Your task to perform on an android device: Open notification settings Image 0: 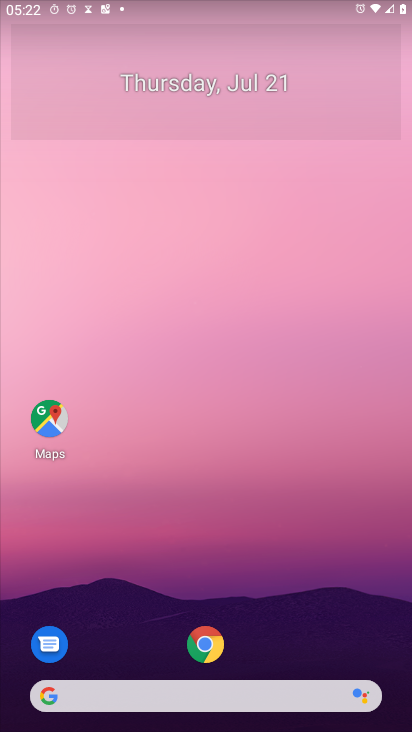
Step 0: press home button
Your task to perform on an android device: Open notification settings Image 1: 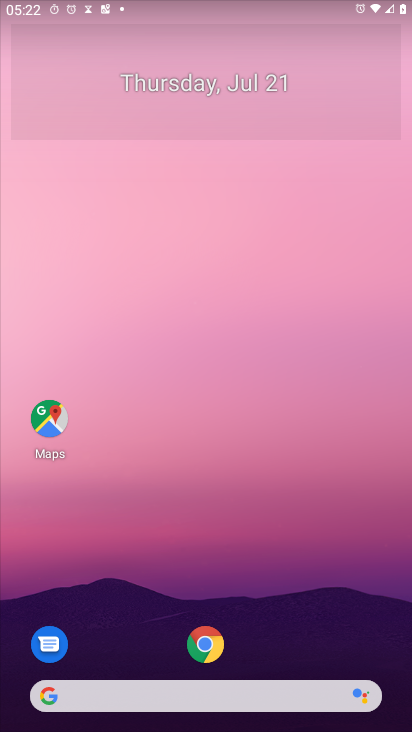
Step 1: drag from (338, 607) to (356, 153)
Your task to perform on an android device: Open notification settings Image 2: 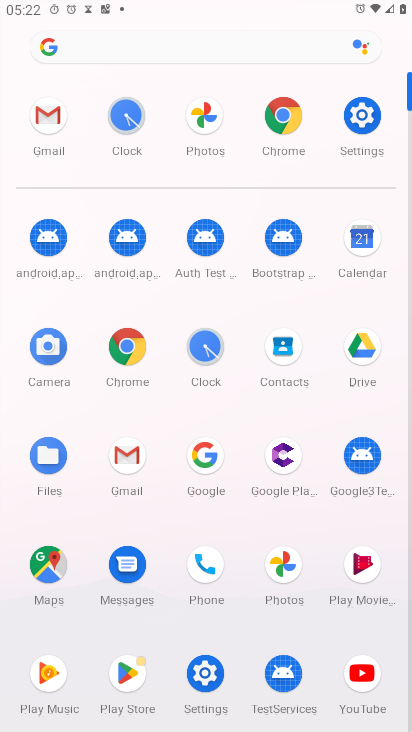
Step 2: click (359, 121)
Your task to perform on an android device: Open notification settings Image 3: 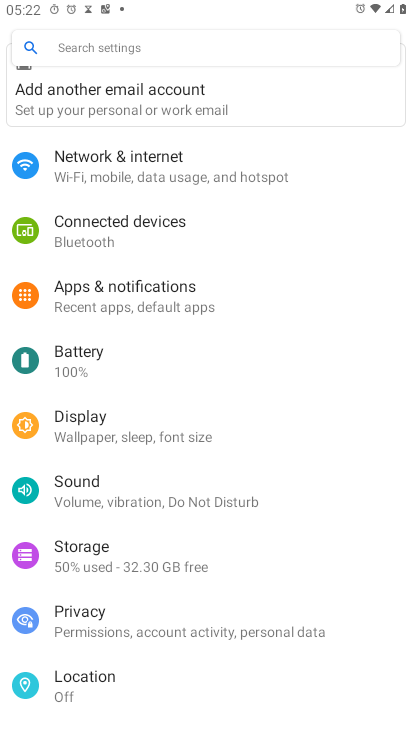
Step 3: click (86, 286)
Your task to perform on an android device: Open notification settings Image 4: 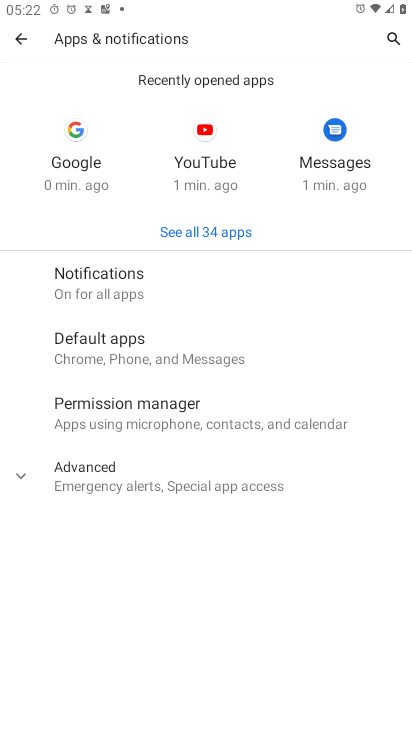
Step 4: click (117, 279)
Your task to perform on an android device: Open notification settings Image 5: 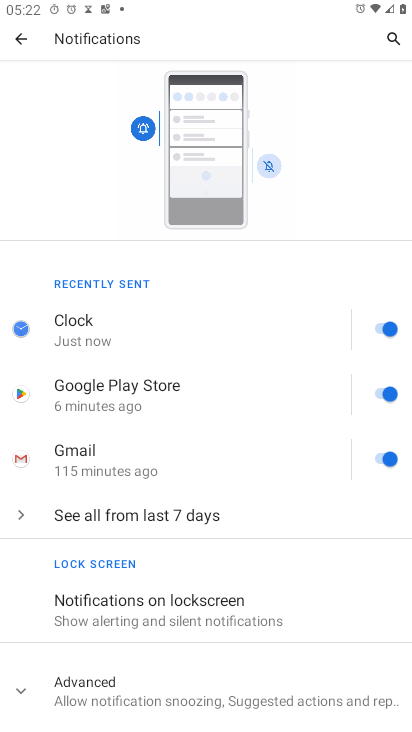
Step 5: task complete